Your task to perform on an android device: Do I have any events this weekend? Image 0: 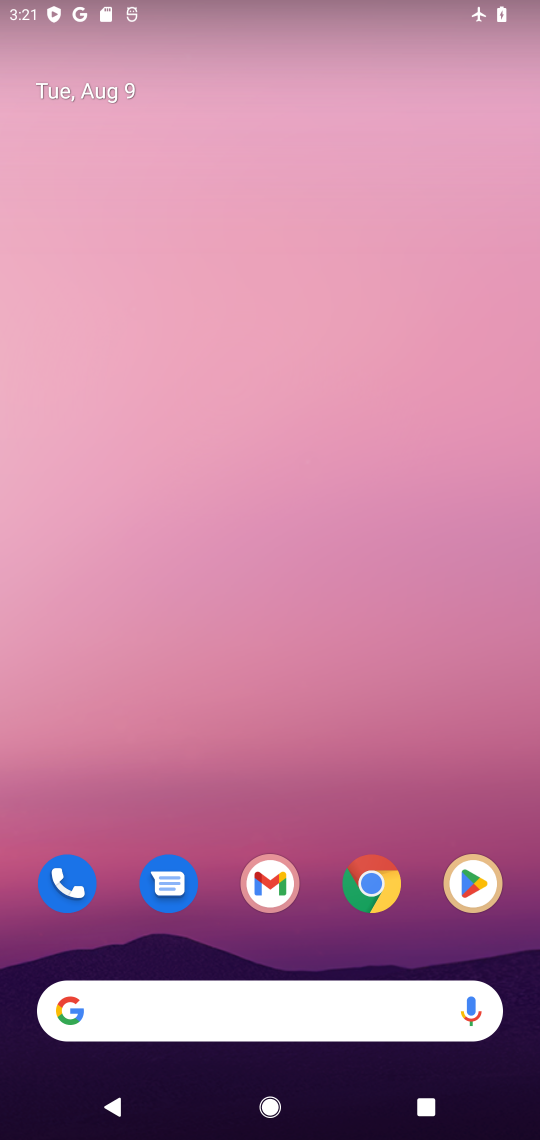
Step 0: drag from (430, 907) to (442, 21)
Your task to perform on an android device: Do I have any events this weekend? Image 1: 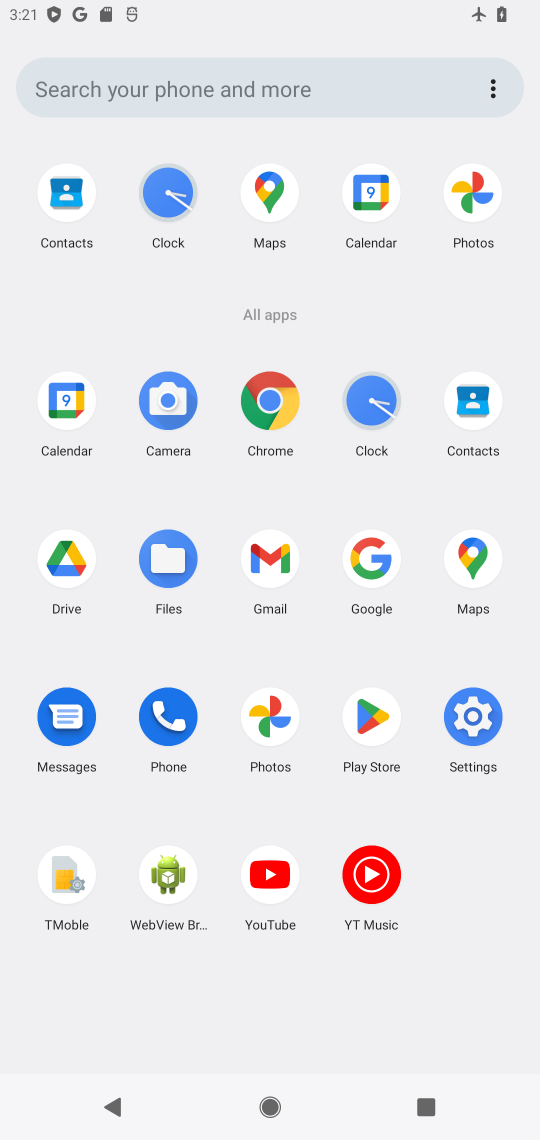
Step 1: click (70, 399)
Your task to perform on an android device: Do I have any events this weekend? Image 2: 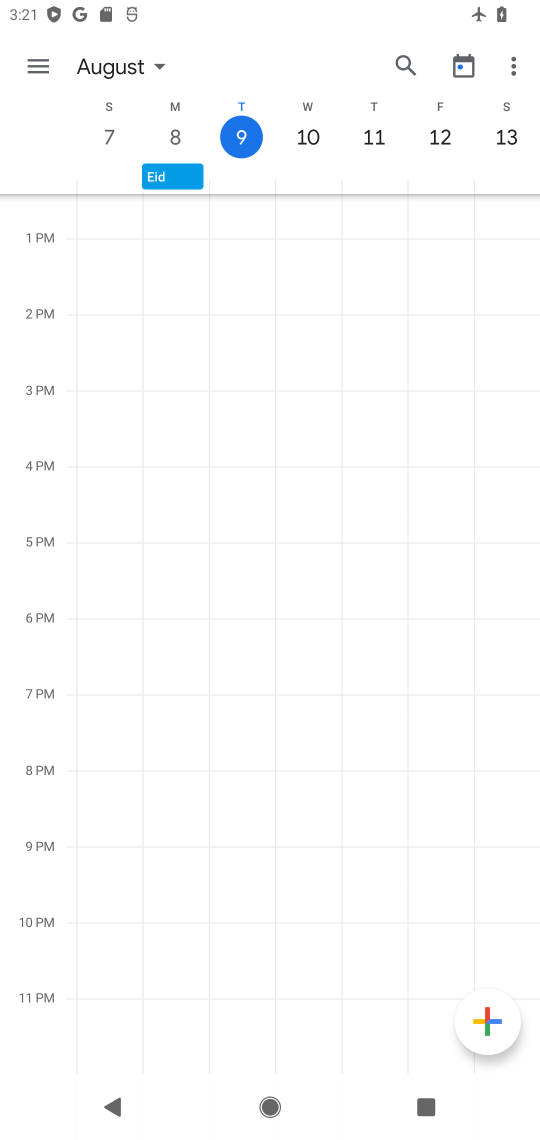
Step 2: task complete